Your task to perform on an android device: Turn off the flashlight Image 0: 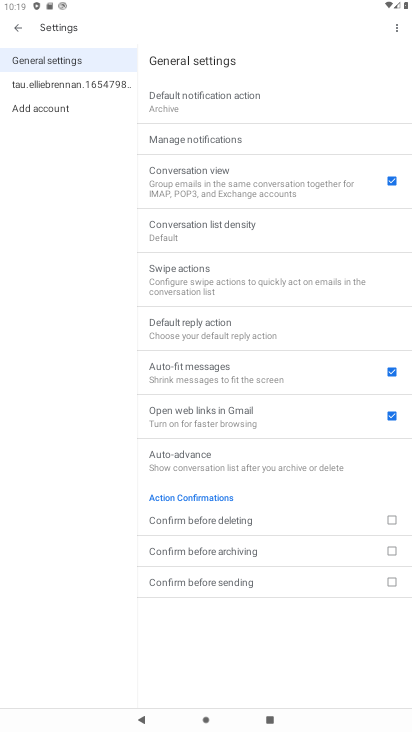
Step 0: press home button
Your task to perform on an android device: Turn off the flashlight Image 1: 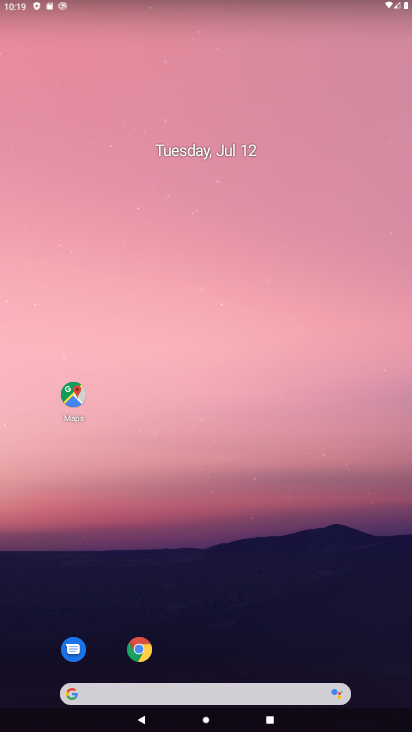
Step 1: drag from (225, 15) to (203, 423)
Your task to perform on an android device: Turn off the flashlight Image 2: 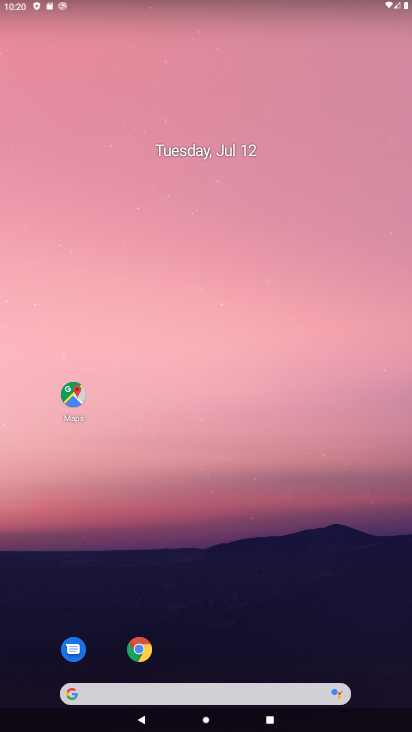
Step 2: drag from (225, 37) to (226, 441)
Your task to perform on an android device: Turn off the flashlight Image 3: 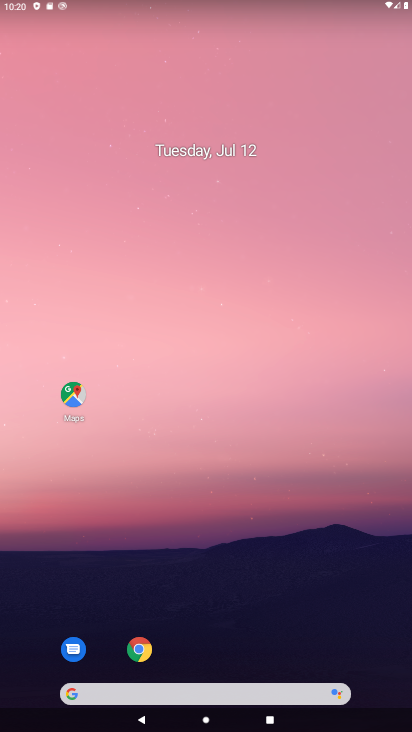
Step 3: drag from (229, 46) to (240, 623)
Your task to perform on an android device: Turn off the flashlight Image 4: 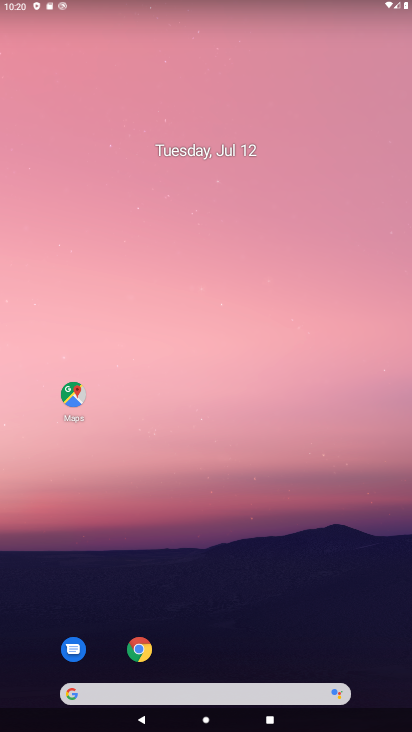
Step 4: drag from (239, 28) to (217, 469)
Your task to perform on an android device: Turn off the flashlight Image 5: 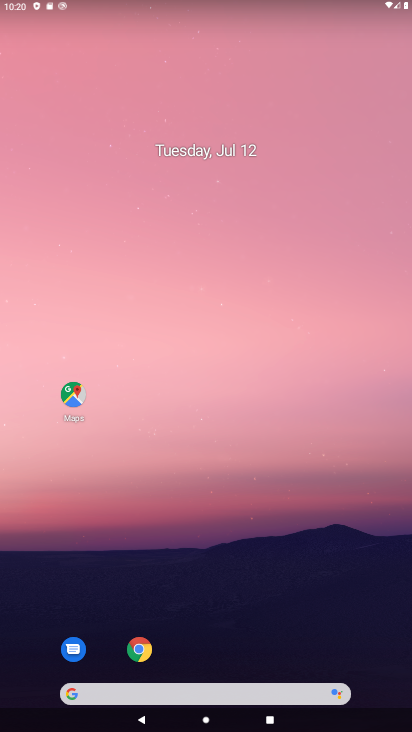
Step 5: drag from (251, 625) to (242, 213)
Your task to perform on an android device: Turn off the flashlight Image 6: 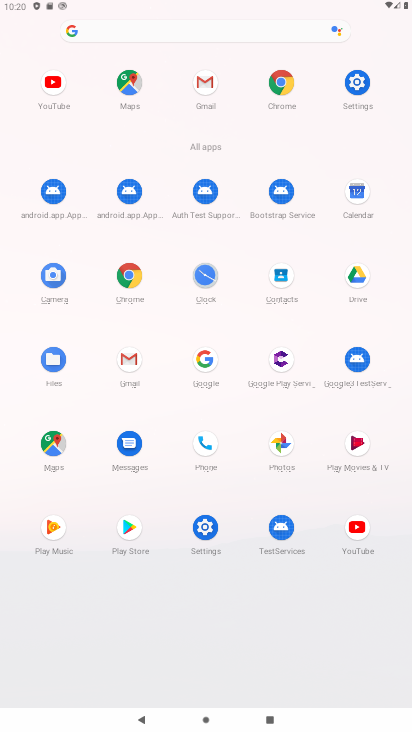
Step 6: drag from (213, 2) to (236, 491)
Your task to perform on an android device: Turn off the flashlight Image 7: 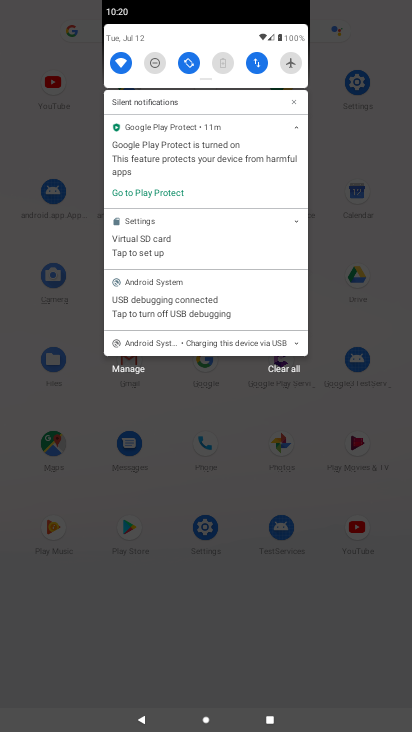
Step 7: drag from (203, 79) to (202, 438)
Your task to perform on an android device: Turn off the flashlight Image 8: 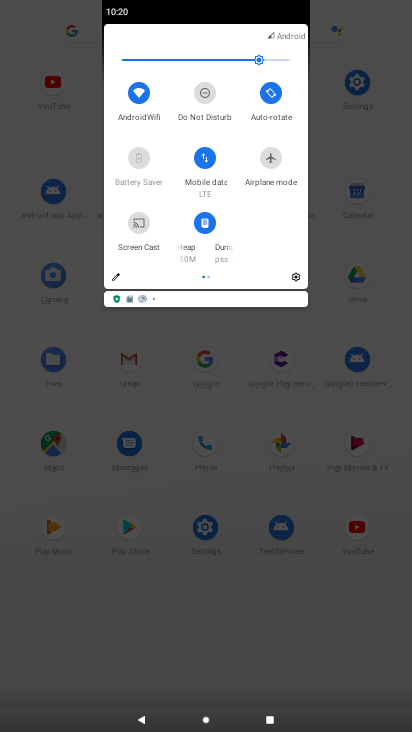
Step 8: click (113, 275)
Your task to perform on an android device: Turn off the flashlight Image 9: 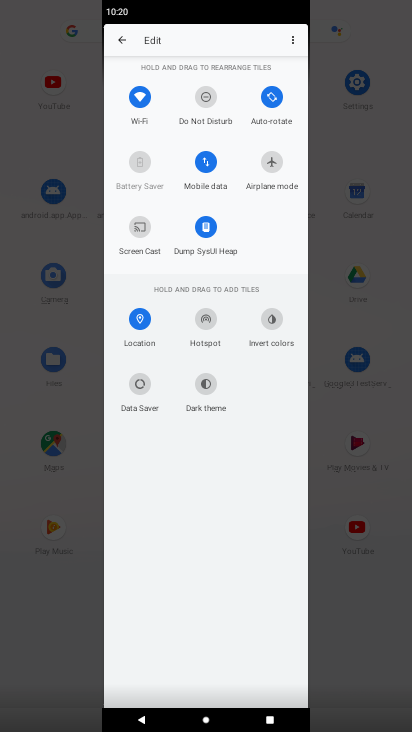
Step 9: task complete